Your task to perform on an android device: turn off location Image 0: 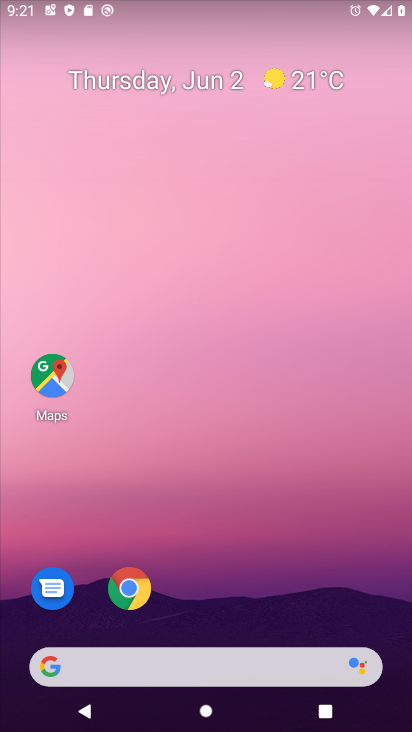
Step 0: drag from (195, 665) to (214, 74)
Your task to perform on an android device: turn off location Image 1: 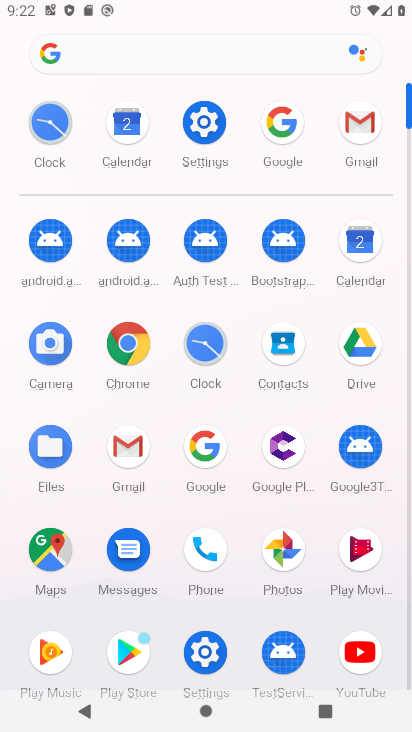
Step 1: click (197, 660)
Your task to perform on an android device: turn off location Image 2: 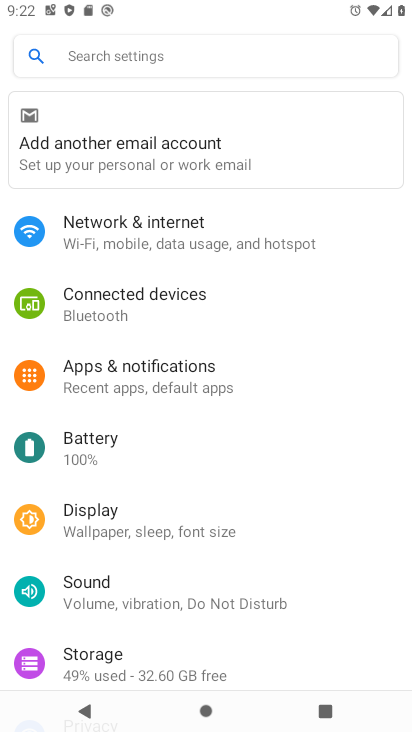
Step 2: drag from (112, 613) to (119, 285)
Your task to perform on an android device: turn off location Image 3: 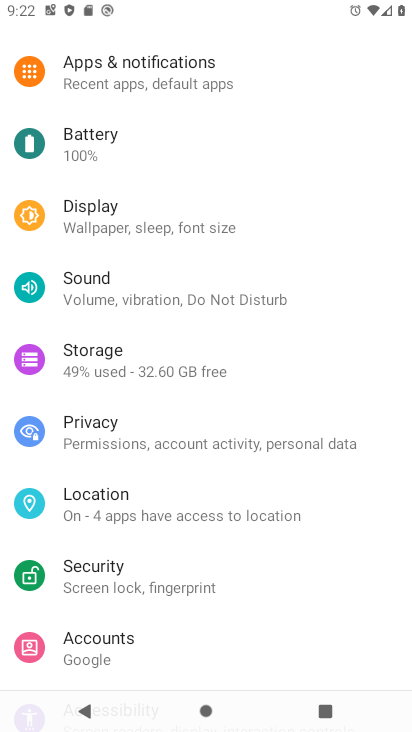
Step 3: click (121, 513)
Your task to perform on an android device: turn off location Image 4: 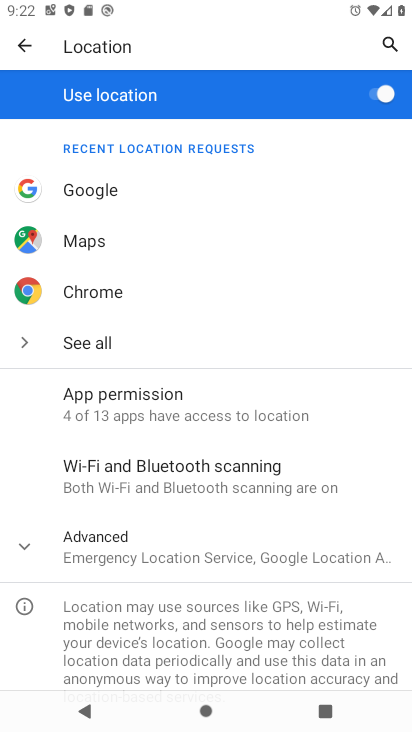
Step 4: click (376, 103)
Your task to perform on an android device: turn off location Image 5: 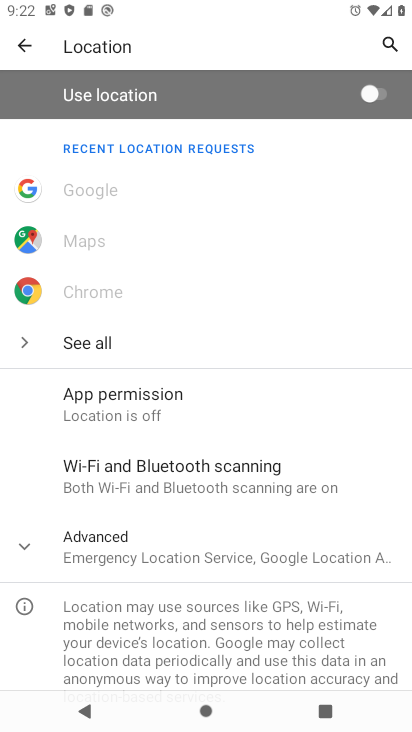
Step 5: task complete